Your task to perform on an android device: turn pop-ups off in chrome Image 0: 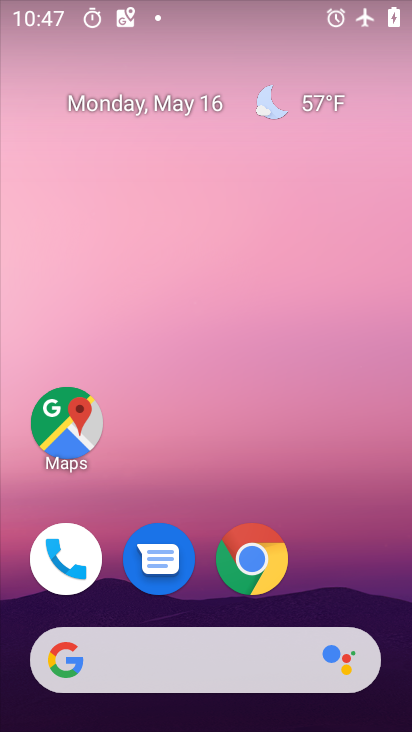
Step 0: click (241, 562)
Your task to perform on an android device: turn pop-ups off in chrome Image 1: 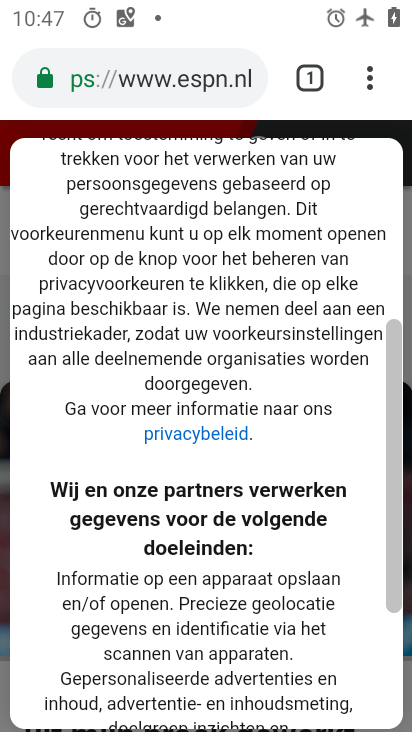
Step 1: drag from (355, 78) to (140, 633)
Your task to perform on an android device: turn pop-ups off in chrome Image 2: 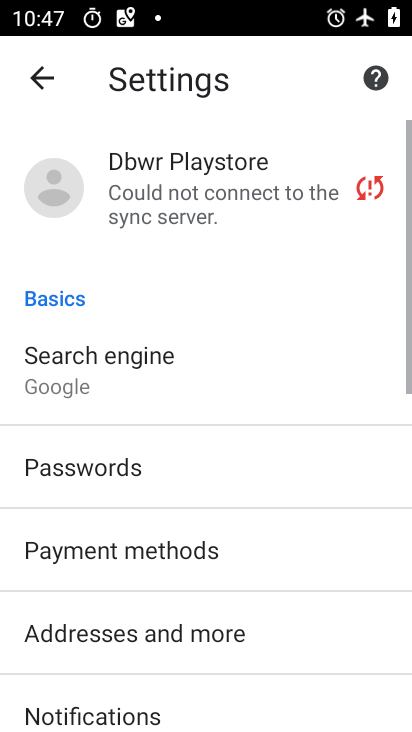
Step 2: drag from (132, 616) to (130, 188)
Your task to perform on an android device: turn pop-ups off in chrome Image 3: 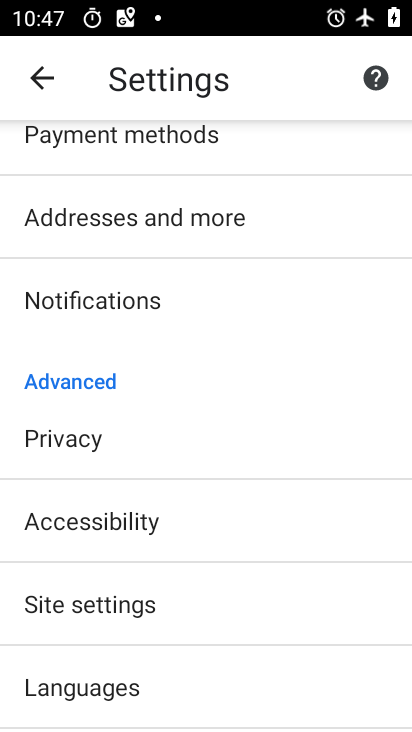
Step 3: click (158, 612)
Your task to perform on an android device: turn pop-ups off in chrome Image 4: 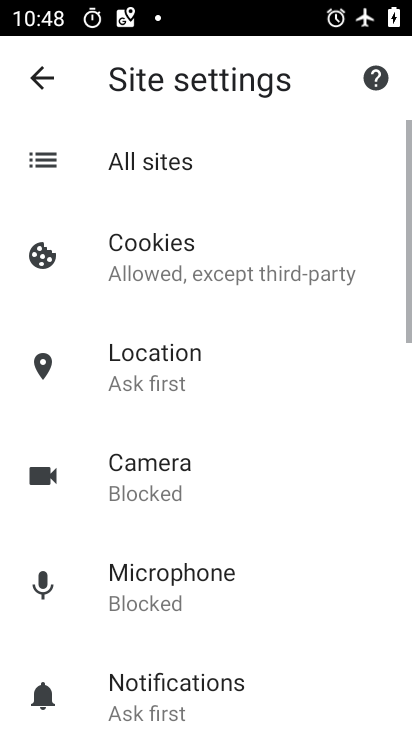
Step 4: drag from (157, 606) to (143, 277)
Your task to perform on an android device: turn pop-ups off in chrome Image 5: 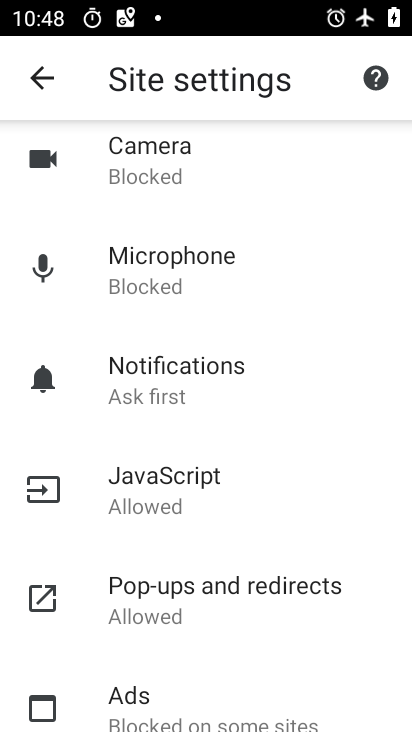
Step 5: click (149, 612)
Your task to perform on an android device: turn pop-ups off in chrome Image 6: 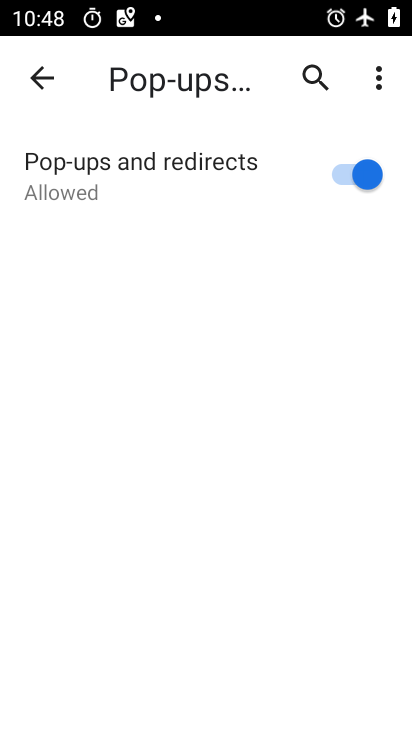
Step 6: click (335, 173)
Your task to perform on an android device: turn pop-ups off in chrome Image 7: 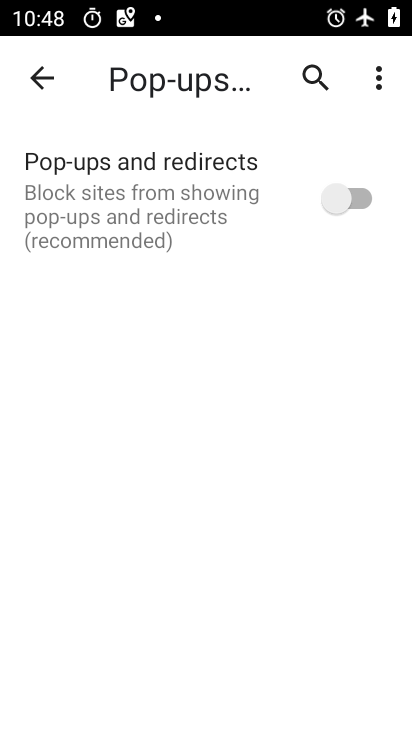
Step 7: task complete